Your task to perform on an android device: Go to Yahoo.com Image 0: 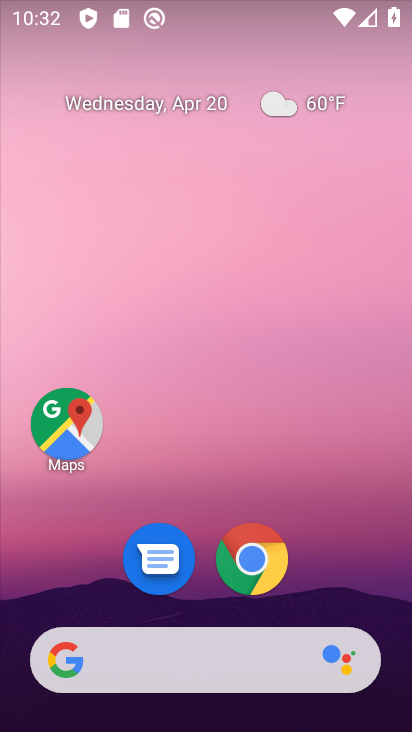
Step 0: drag from (342, 583) to (325, 10)
Your task to perform on an android device: Go to Yahoo.com Image 1: 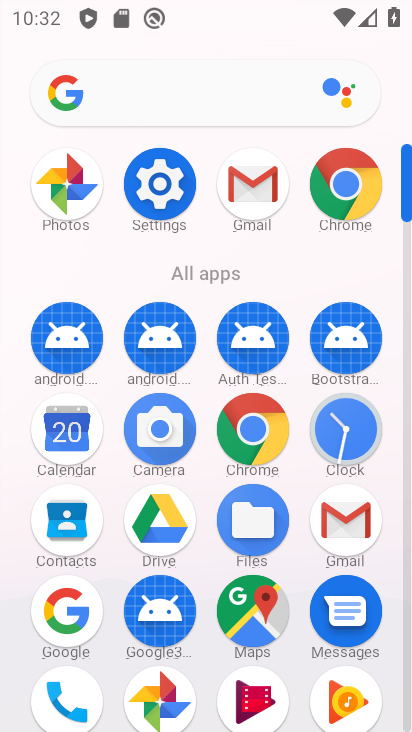
Step 1: drag from (210, 672) to (204, 257)
Your task to perform on an android device: Go to Yahoo.com Image 2: 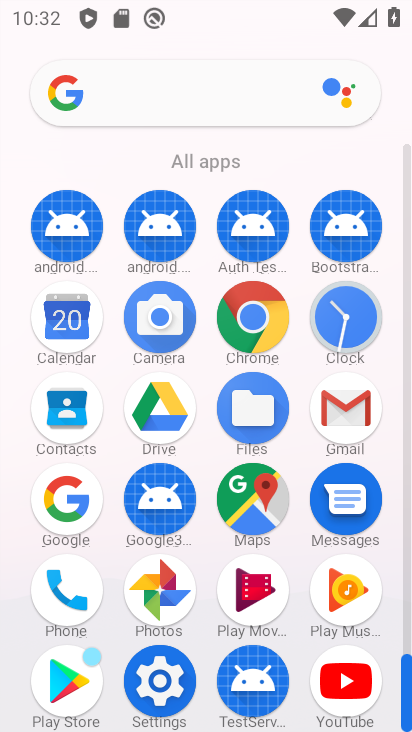
Step 2: click (258, 341)
Your task to perform on an android device: Go to Yahoo.com Image 3: 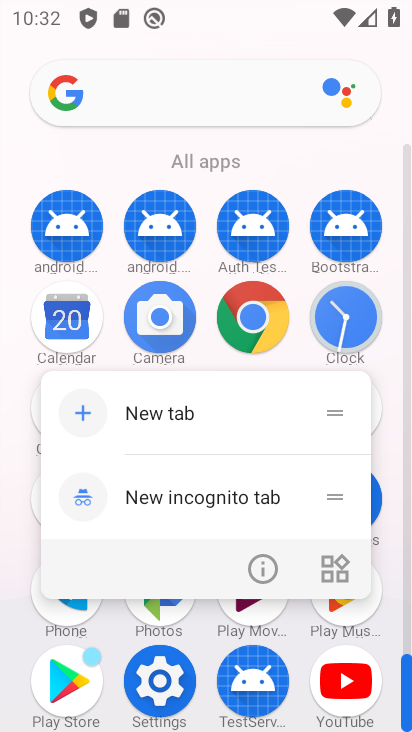
Step 3: click (258, 341)
Your task to perform on an android device: Go to Yahoo.com Image 4: 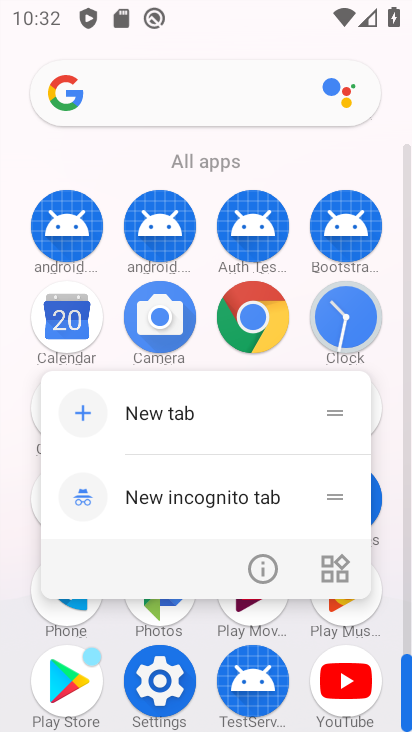
Step 4: click (258, 341)
Your task to perform on an android device: Go to Yahoo.com Image 5: 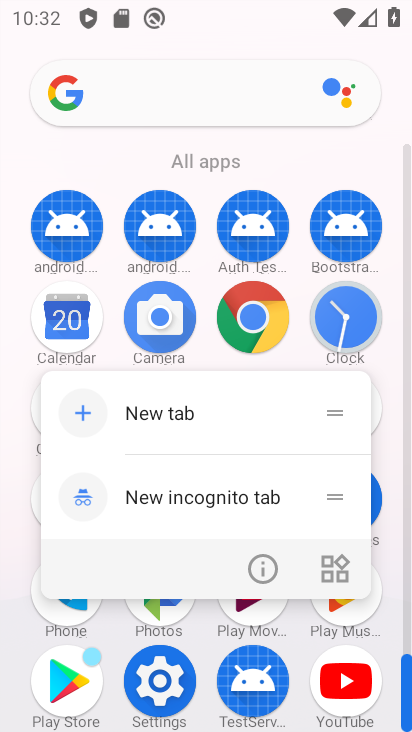
Step 5: click (262, 311)
Your task to perform on an android device: Go to Yahoo.com Image 6: 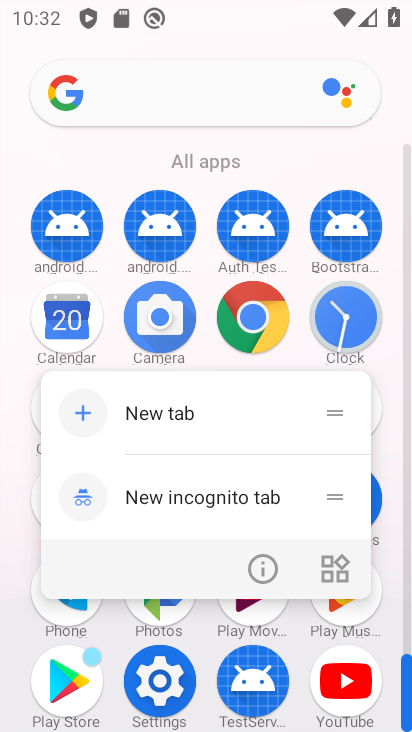
Step 6: click (262, 311)
Your task to perform on an android device: Go to Yahoo.com Image 7: 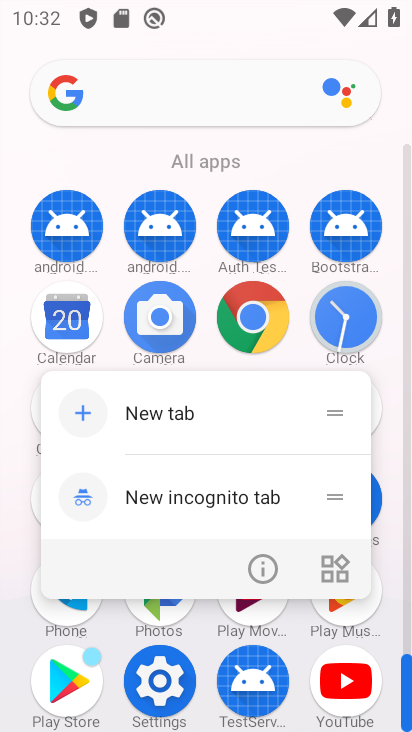
Step 7: click (262, 311)
Your task to perform on an android device: Go to Yahoo.com Image 8: 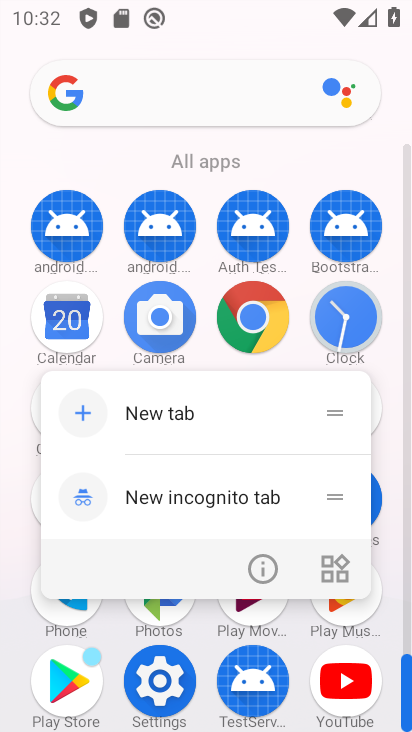
Step 8: click (262, 311)
Your task to perform on an android device: Go to Yahoo.com Image 9: 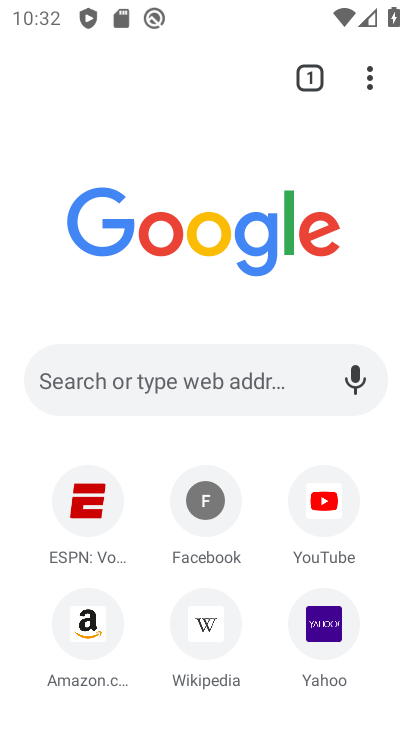
Step 9: click (262, 311)
Your task to perform on an android device: Go to Yahoo.com Image 10: 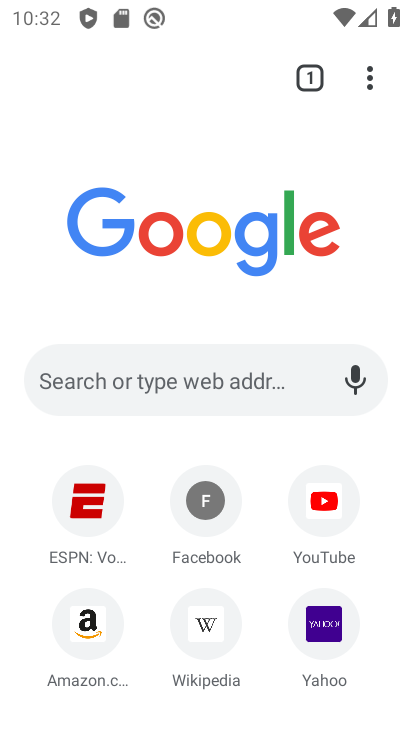
Step 10: drag from (244, 605) to (265, 46)
Your task to perform on an android device: Go to Yahoo.com Image 11: 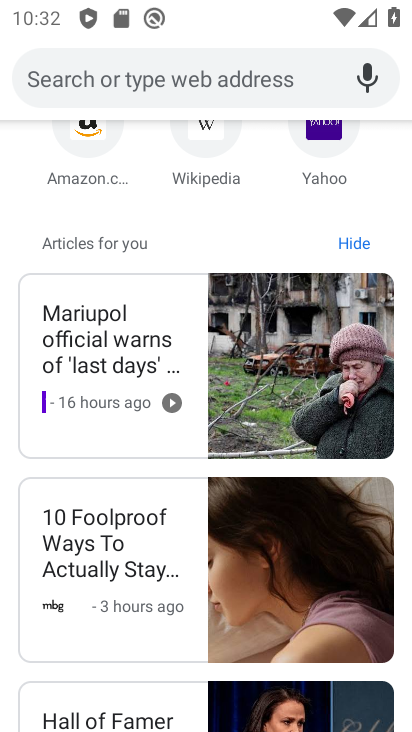
Step 11: click (329, 132)
Your task to perform on an android device: Go to Yahoo.com Image 12: 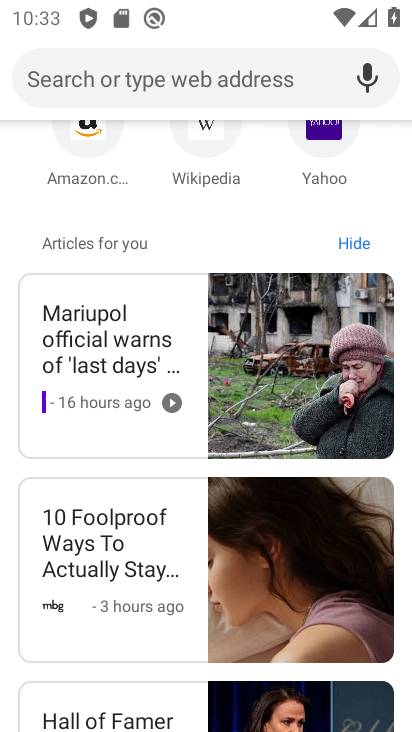
Step 12: task complete